Your task to perform on an android device: Open CNN.com Image 0: 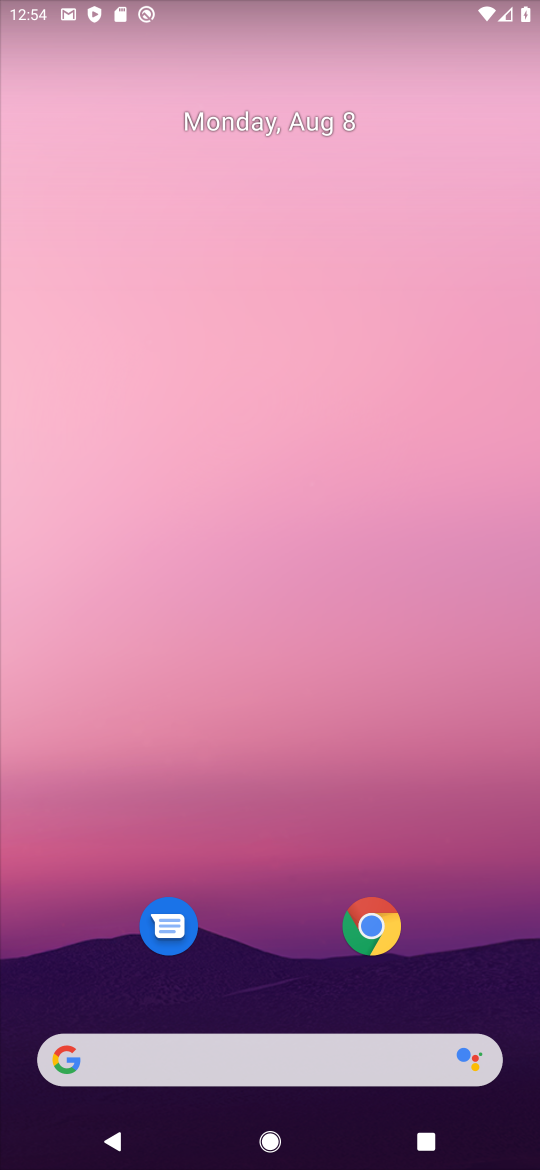
Step 0: drag from (281, 248) to (285, 196)
Your task to perform on an android device: Open CNN.com Image 1: 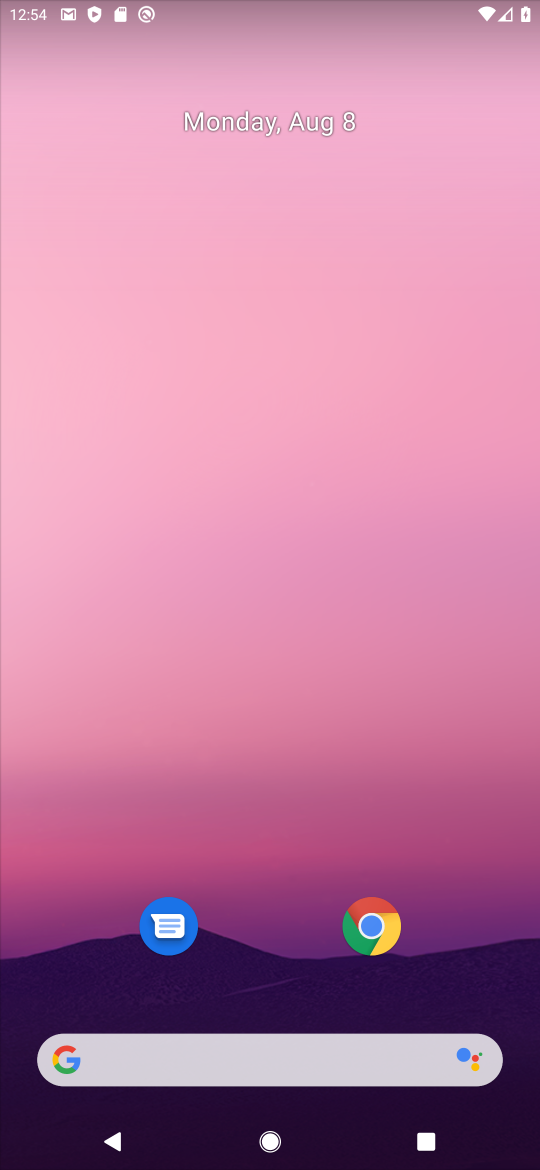
Step 1: drag from (291, 1018) to (335, 190)
Your task to perform on an android device: Open CNN.com Image 2: 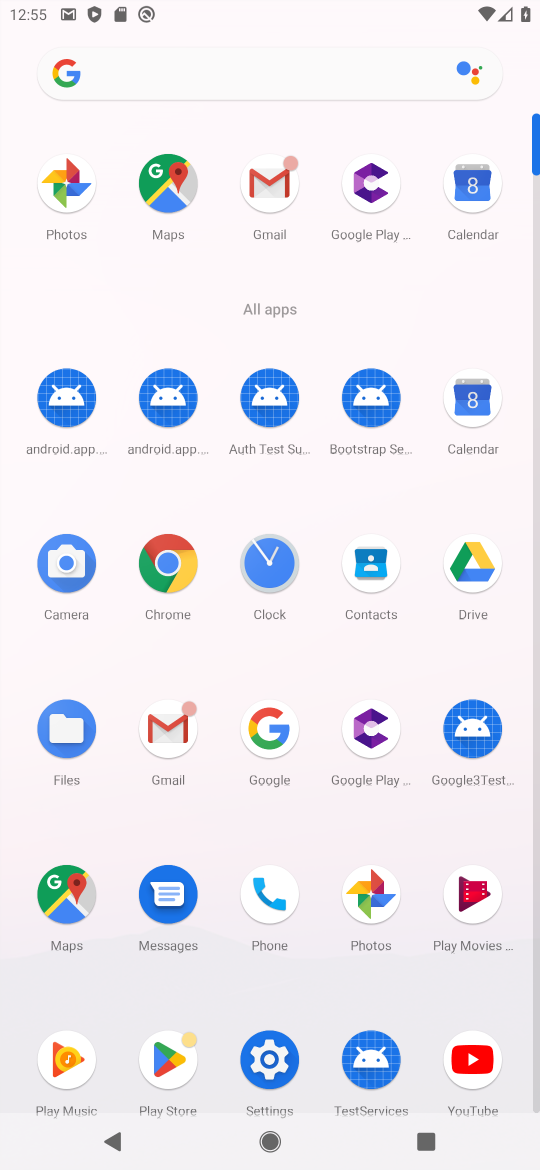
Step 2: click (181, 577)
Your task to perform on an android device: Open CNN.com Image 3: 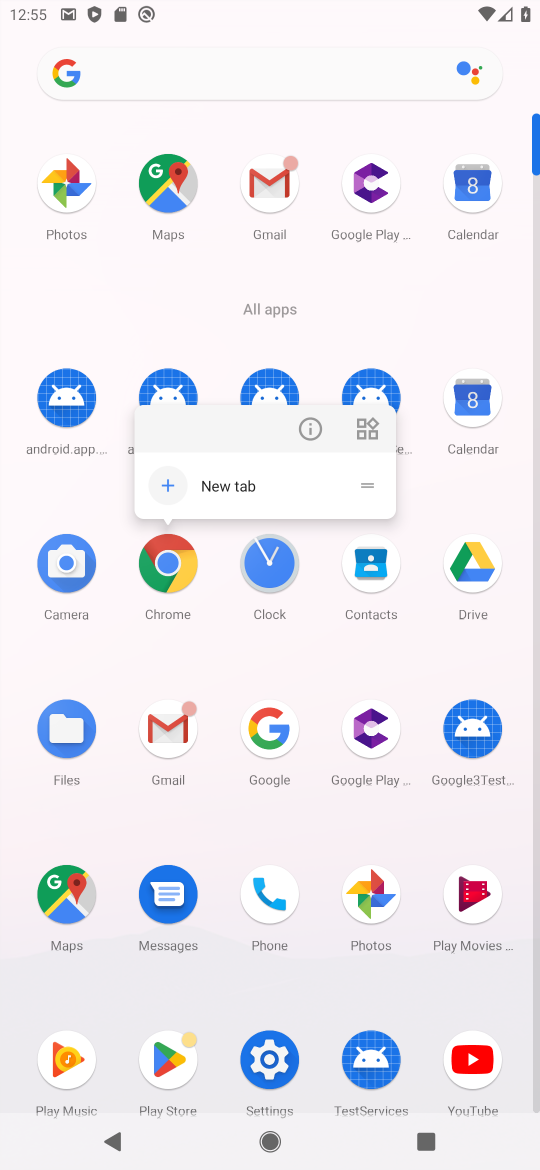
Step 3: click (185, 567)
Your task to perform on an android device: Open CNN.com Image 4: 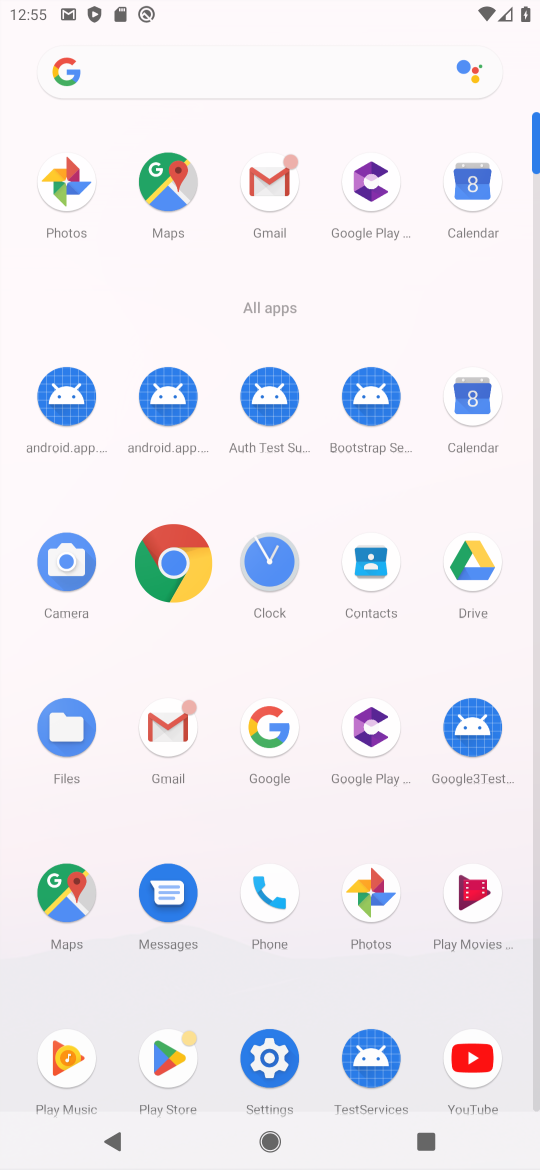
Step 4: click (172, 557)
Your task to perform on an android device: Open CNN.com Image 5: 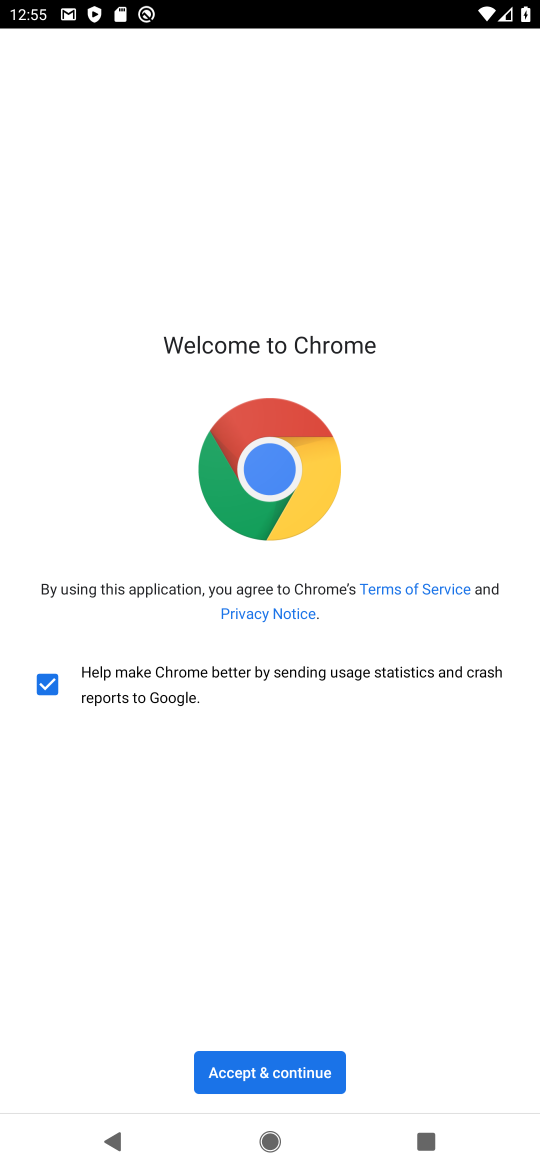
Step 5: click (323, 1060)
Your task to perform on an android device: Open CNN.com Image 6: 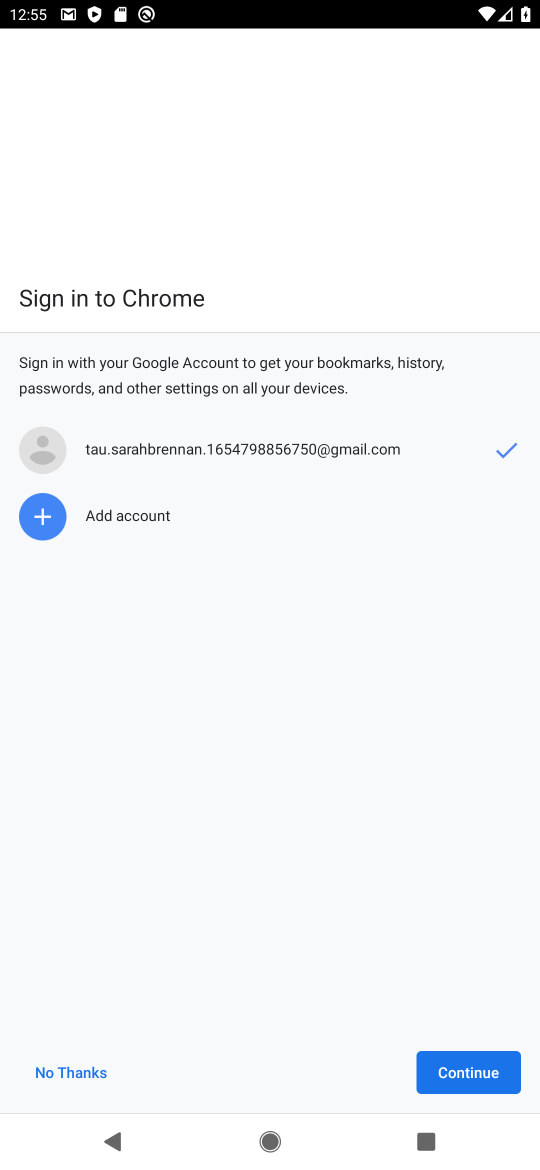
Step 6: click (472, 1069)
Your task to perform on an android device: Open CNN.com Image 7: 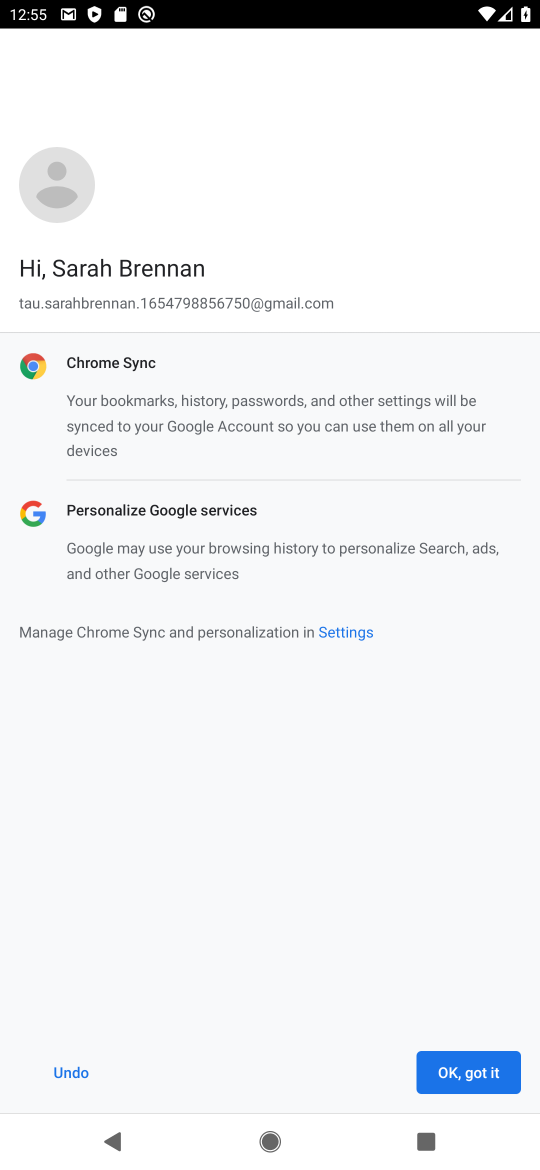
Step 7: click (472, 1069)
Your task to perform on an android device: Open CNN.com Image 8: 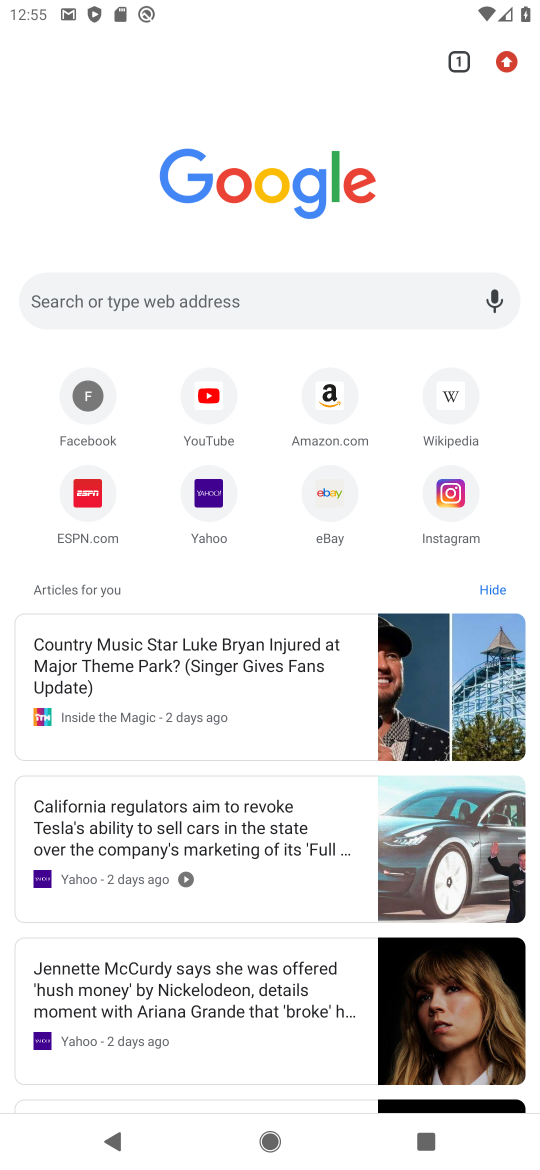
Step 8: click (237, 289)
Your task to perform on an android device: Open CNN.com Image 9: 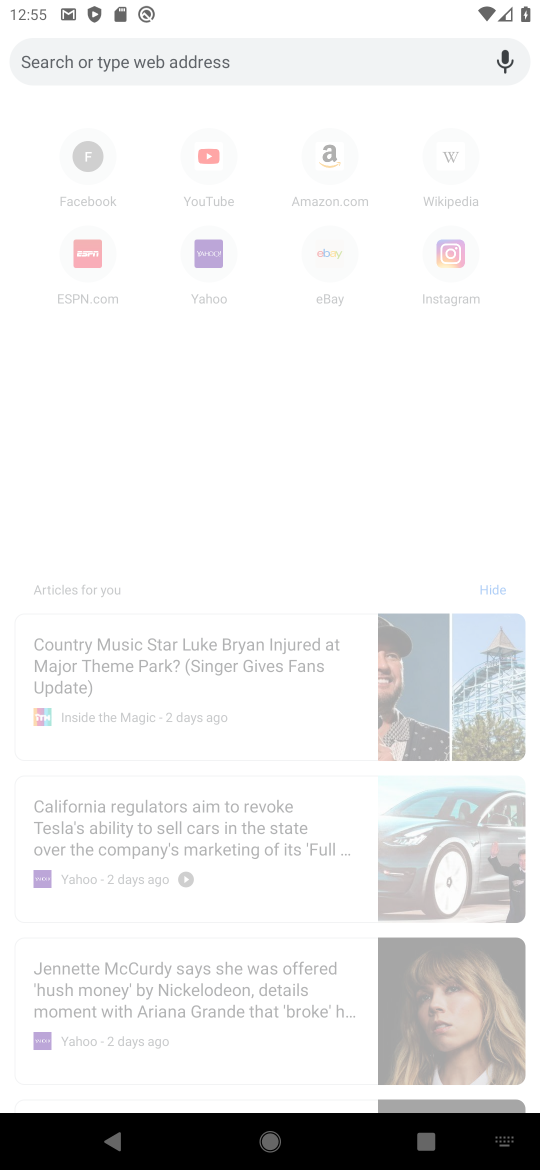
Step 9: type " CNN.com "
Your task to perform on an android device: Open CNN.com Image 10: 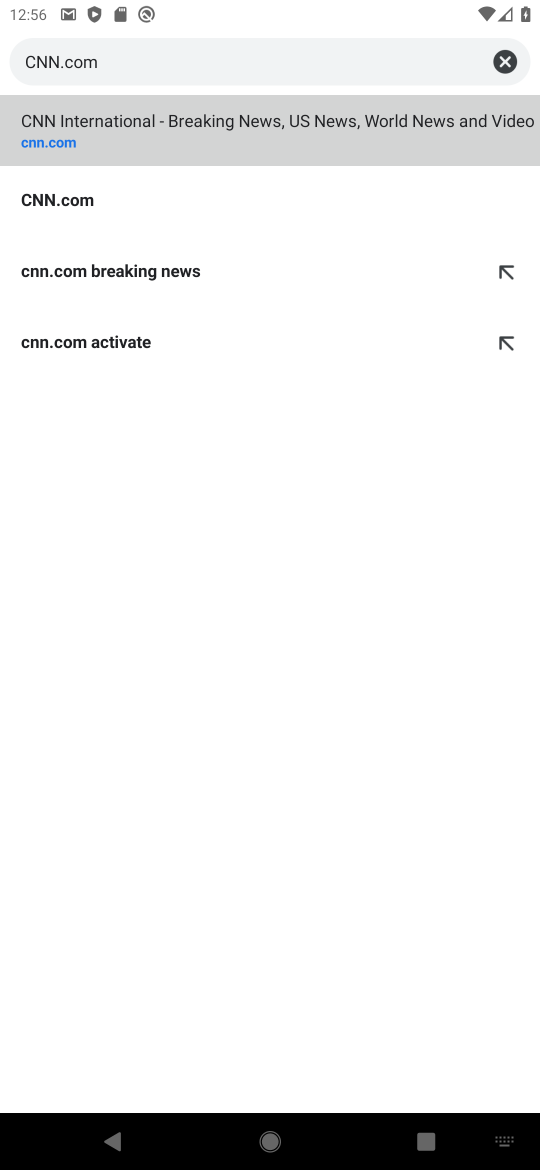
Step 10: click (197, 112)
Your task to perform on an android device: Open CNN.com Image 11: 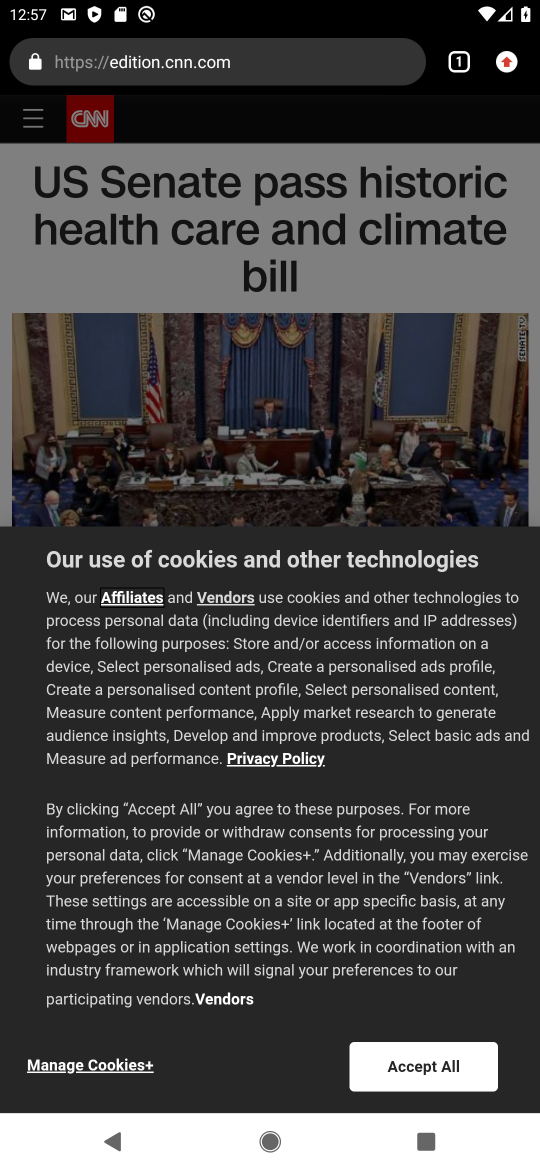
Step 11: task complete